Your task to perform on an android device: Open Reddit.com Image 0: 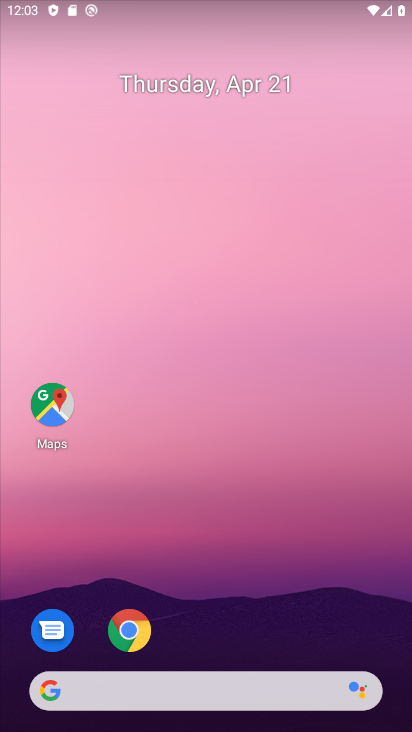
Step 0: drag from (299, 505) to (374, 5)
Your task to perform on an android device: Open Reddit.com Image 1: 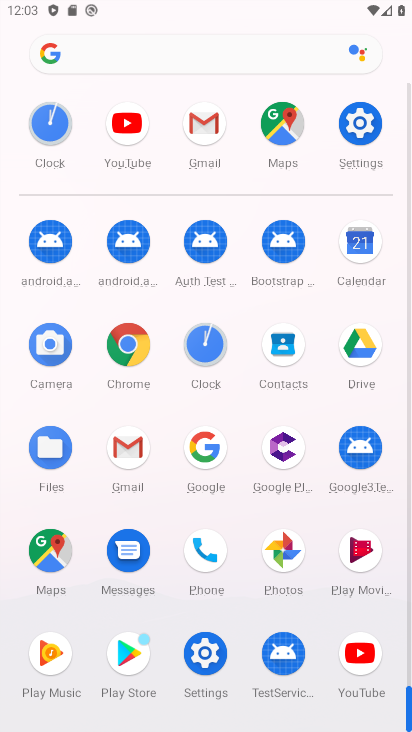
Step 1: click (118, 357)
Your task to perform on an android device: Open Reddit.com Image 2: 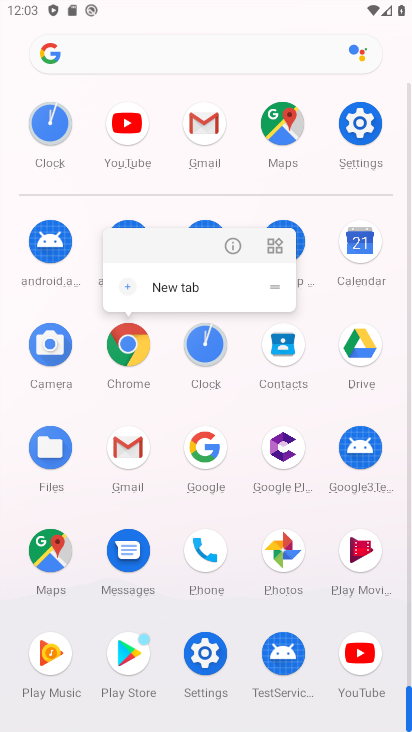
Step 2: click (122, 357)
Your task to perform on an android device: Open Reddit.com Image 3: 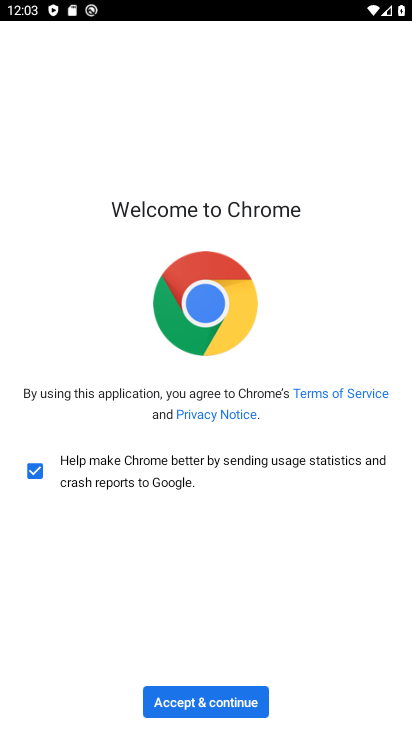
Step 3: click (198, 696)
Your task to perform on an android device: Open Reddit.com Image 4: 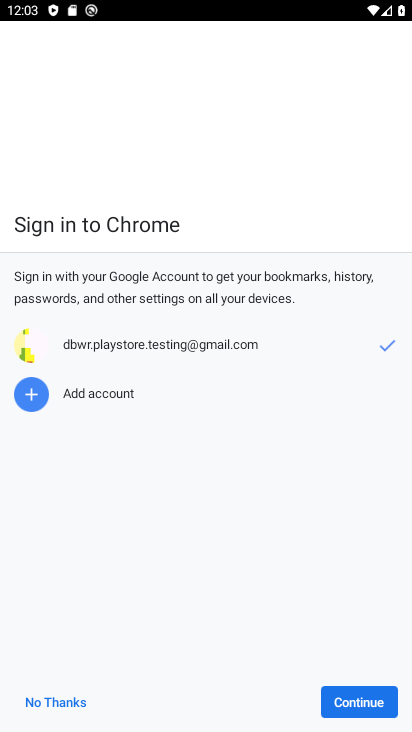
Step 4: click (59, 699)
Your task to perform on an android device: Open Reddit.com Image 5: 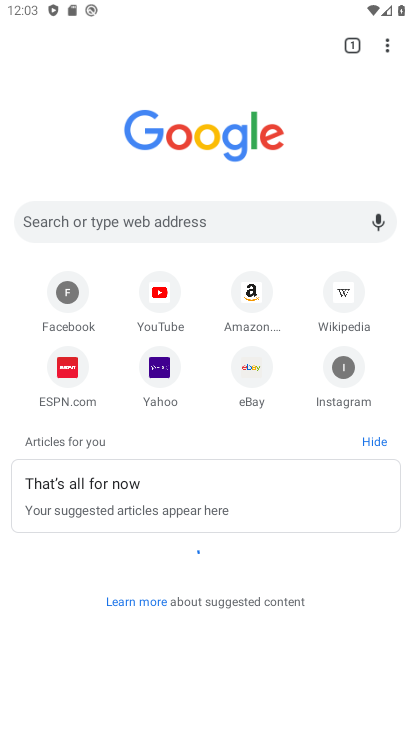
Step 5: click (219, 39)
Your task to perform on an android device: Open Reddit.com Image 6: 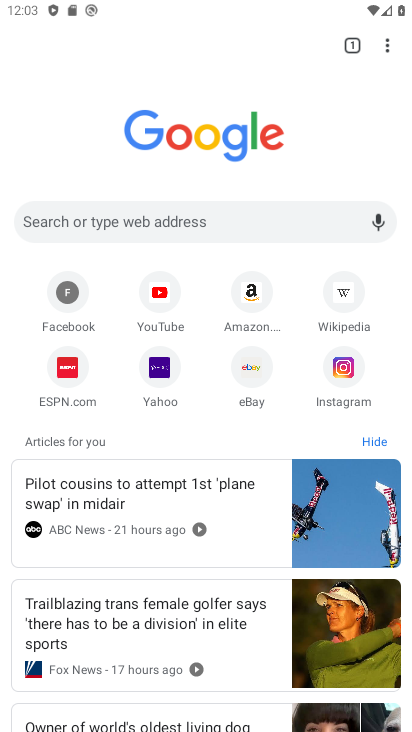
Step 6: click (177, 202)
Your task to perform on an android device: Open Reddit.com Image 7: 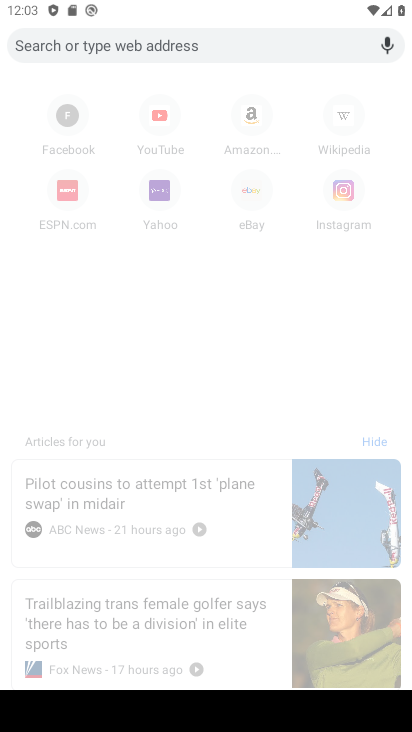
Step 7: type "reddit.com"
Your task to perform on an android device: Open Reddit.com Image 8: 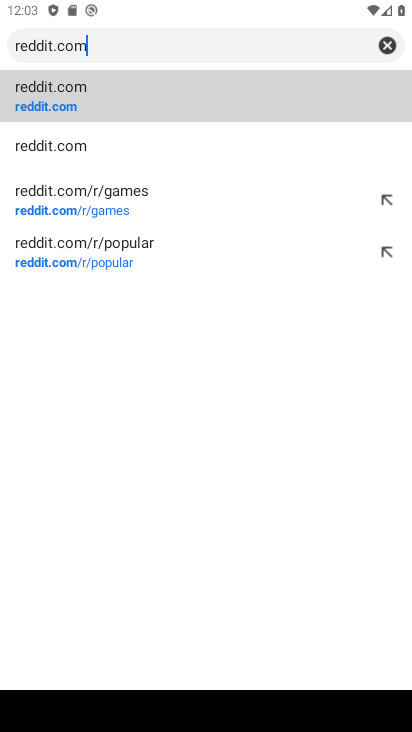
Step 8: click (29, 92)
Your task to perform on an android device: Open Reddit.com Image 9: 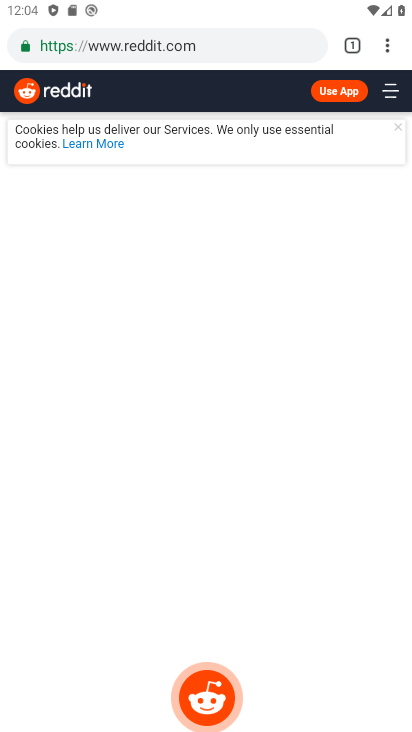
Step 9: task complete